Your task to perform on an android device: Open Wikipedia Image 0: 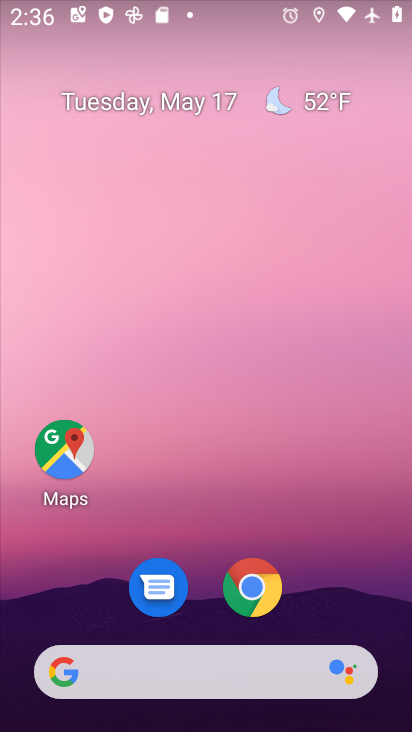
Step 0: click (261, 594)
Your task to perform on an android device: Open Wikipedia Image 1: 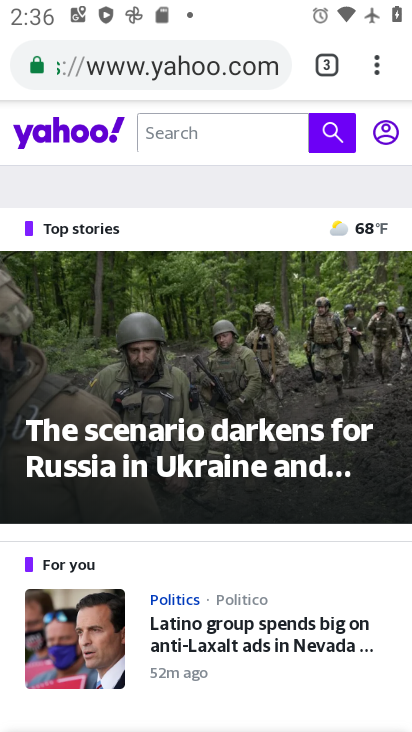
Step 1: click (339, 64)
Your task to perform on an android device: Open Wikipedia Image 2: 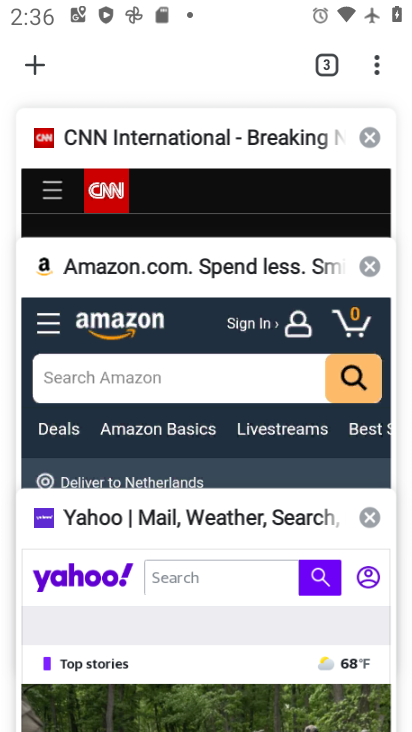
Step 2: click (29, 55)
Your task to perform on an android device: Open Wikipedia Image 3: 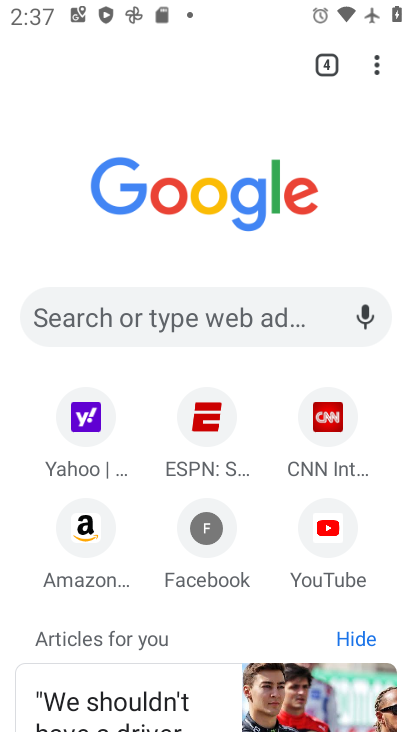
Step 3: click (198, 316)
Your task to perform on an android device: Open Wikipedia Image 4: 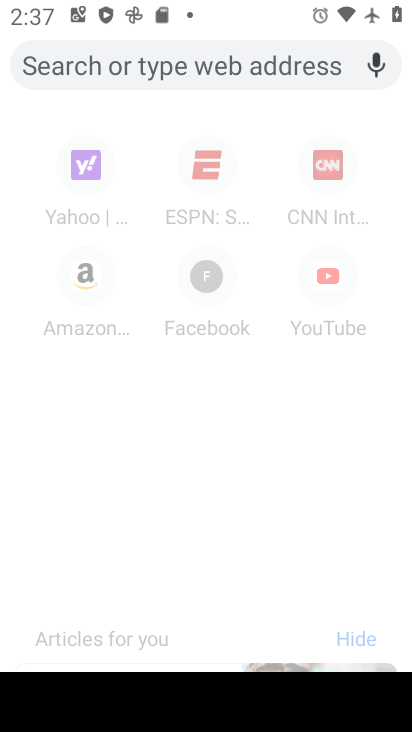
Step 4: type "wikipedia"
Your task to perform on an android device: Open Wikipedia Image 5: 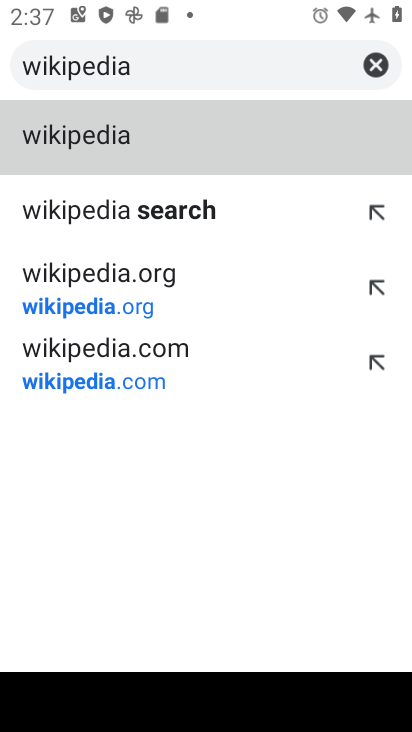
Step 5: click (95, 291)
Your task to perform on an android device: Open Wikipedia Image 6: 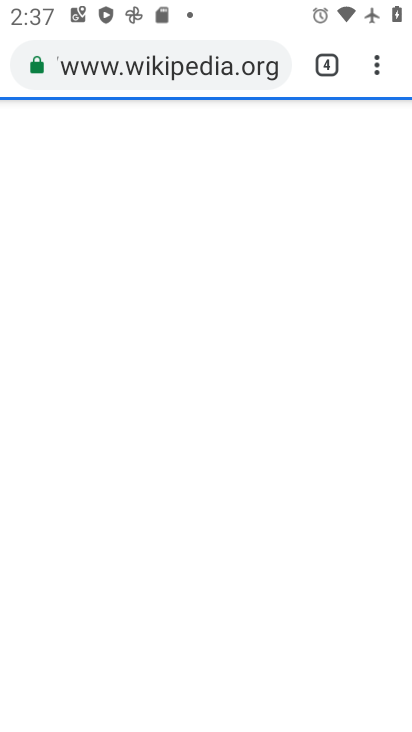
Step 6: task complete